Your task to perform on an android device: Open Wikipedia Image 0: 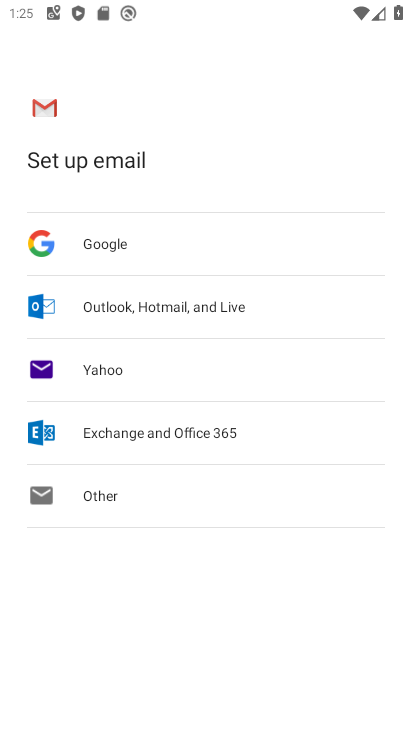
Step 0: press home button
Your task to perform on an android device: Open Wikipedia Image 1: 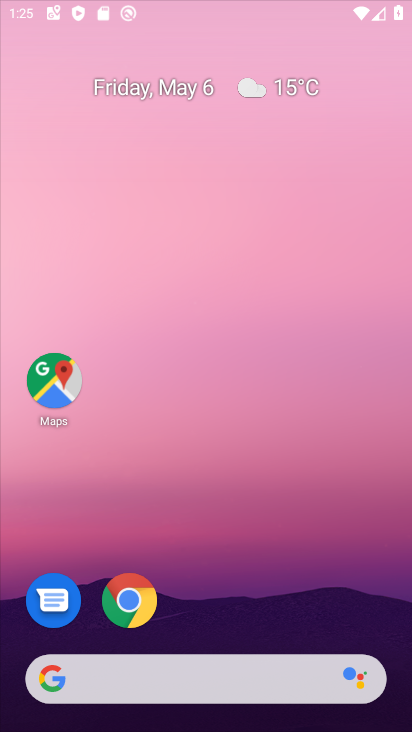
Step 1: drag from (380, 609) to (243, 65)
Your task to perform on an android device: Open Wikipedia Image 2: 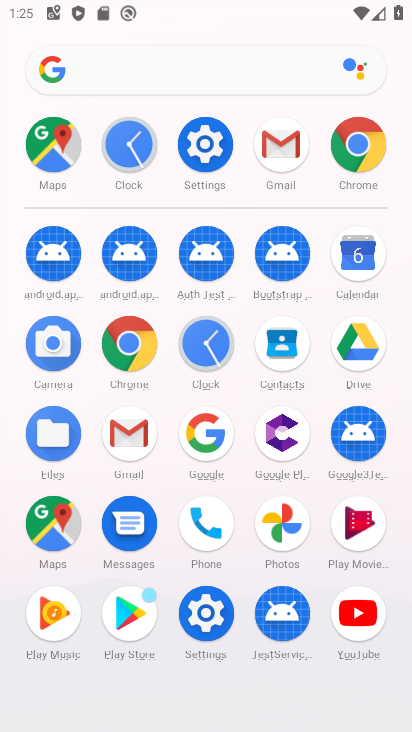
Step 2: click (205, 445)
Your task to perform on an android device: Open Wikipedia Image 3: 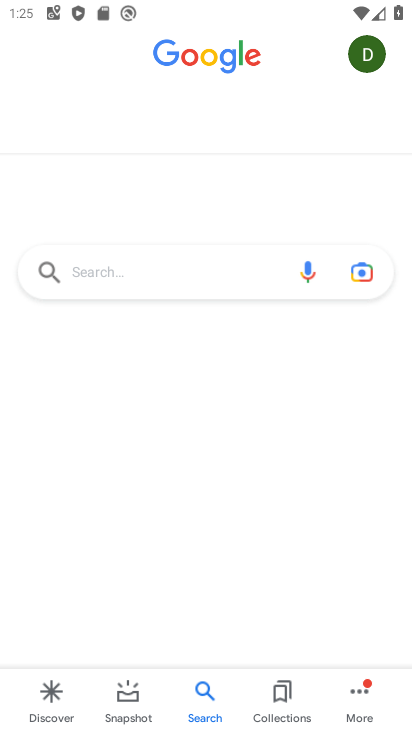
Step 3: click (190, 278)
Your task to perform on an android device: Open Wikipedia Image 4: 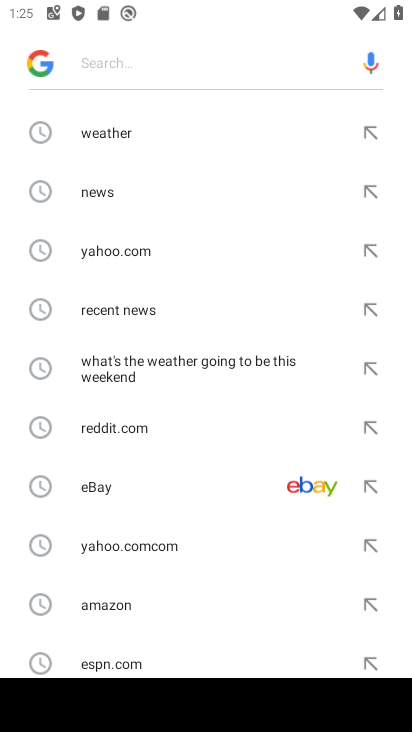
Step 4: type "wikipedia"
Your task to perform on an android device: Open Wikipedia Image 5: 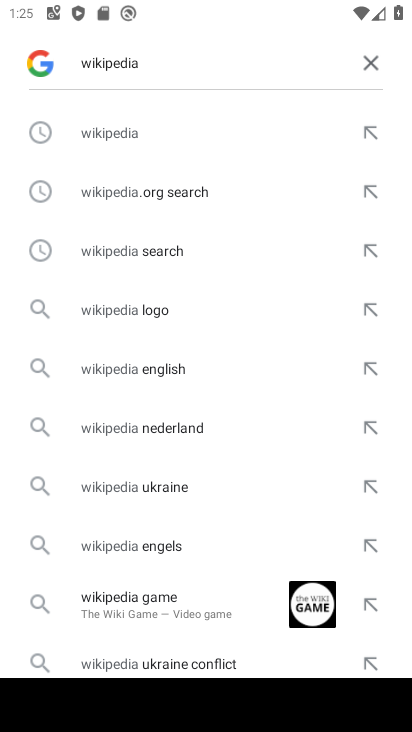
Step 5: click (186, 149)
Your task to perform on an android device: Open Wikipedia Image 6: 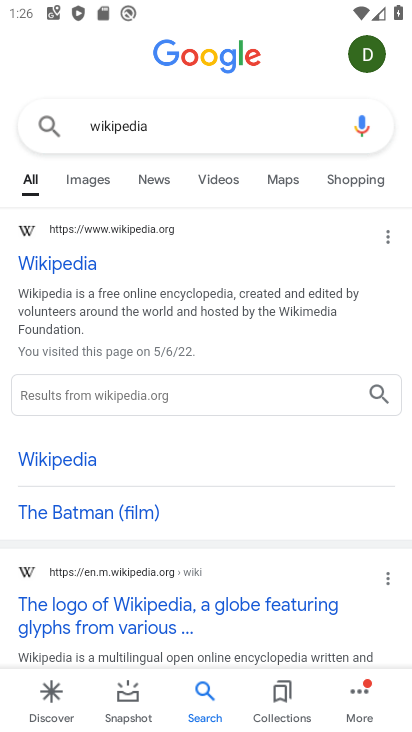
Step 6: click (59, 268)
Your task to perform on an android device: Open Wikipedia Image 7: 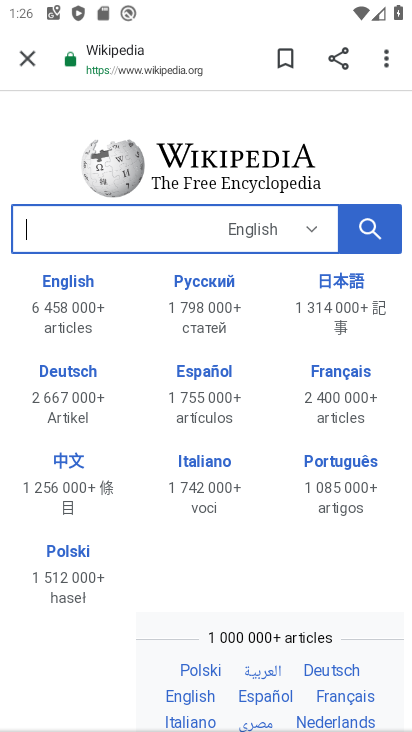
Step 7: task complete